Your task to perform on an android device: choose inbox layout in the gmail app Image 0: 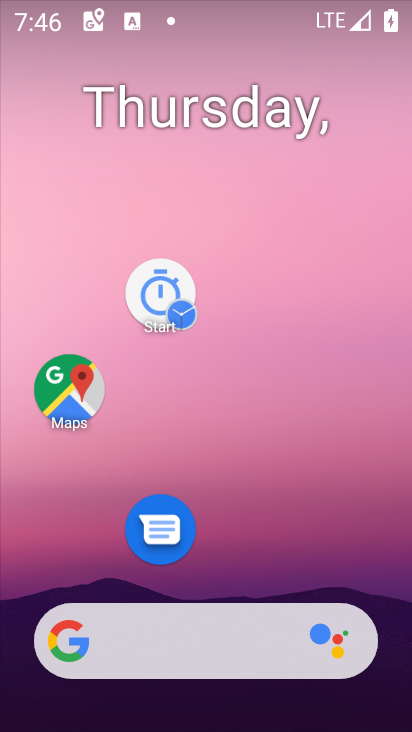
Step 0: drag from (222, 551) to (196, 16)
Your task to perform on an android device: choose inbox layout in the gmail app Image 1: 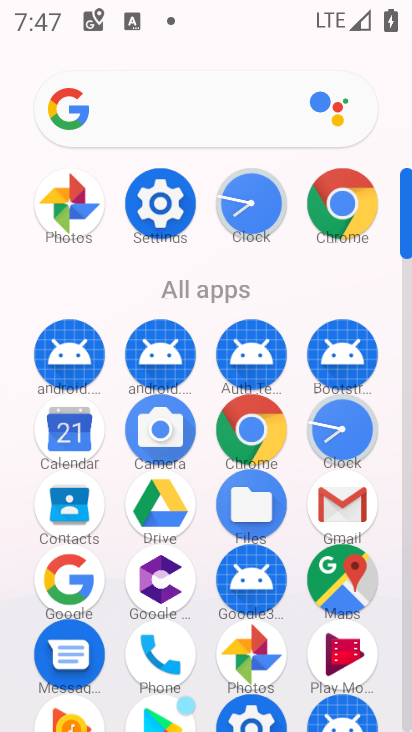
Step 1: click (341, 490)
Your task to perform on an android device: choose inbox layout in the gmail app Image 2: 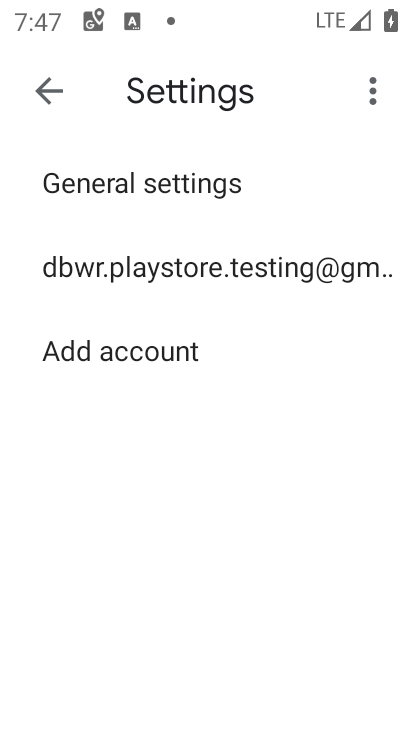
Step 2: click (181, 274)
Your task to perform on an android device: choose inbox layout in the gmail app Image 3: 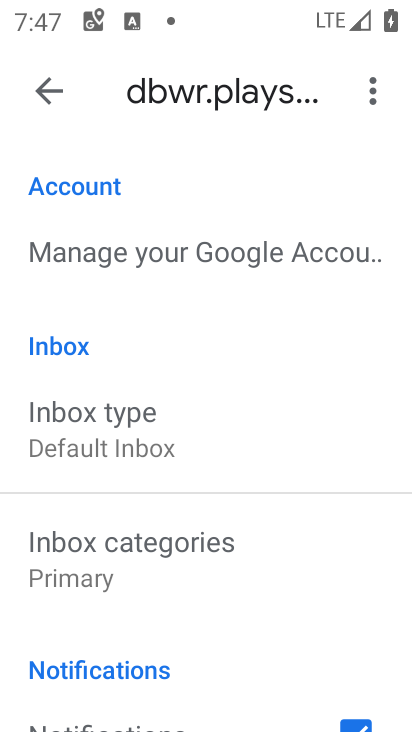
Step 3: click (33, 426)
Your task to perform on an android device: choose inbox layout in the gmail app Image 4: 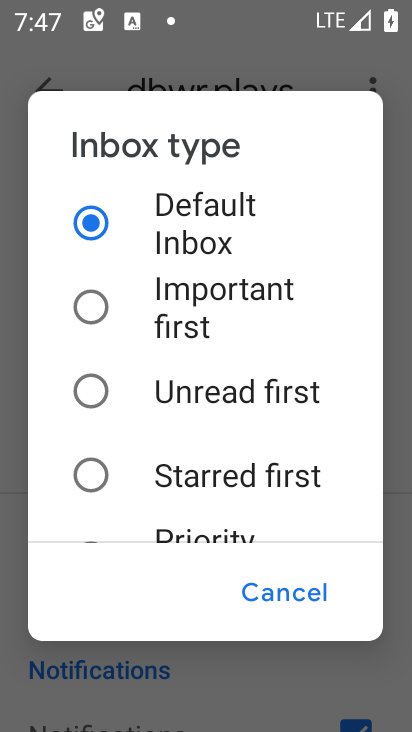
Step 4: click (92, 309)
Your task to perform on an android device: choose inbox layout in the gmail app Image 5: 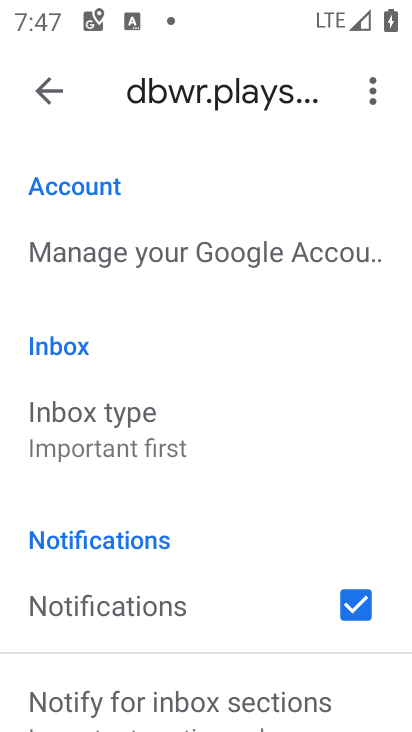
Step 5: task complete